Your task to perform on an android device: install app "Viber Messenger" Image 0: 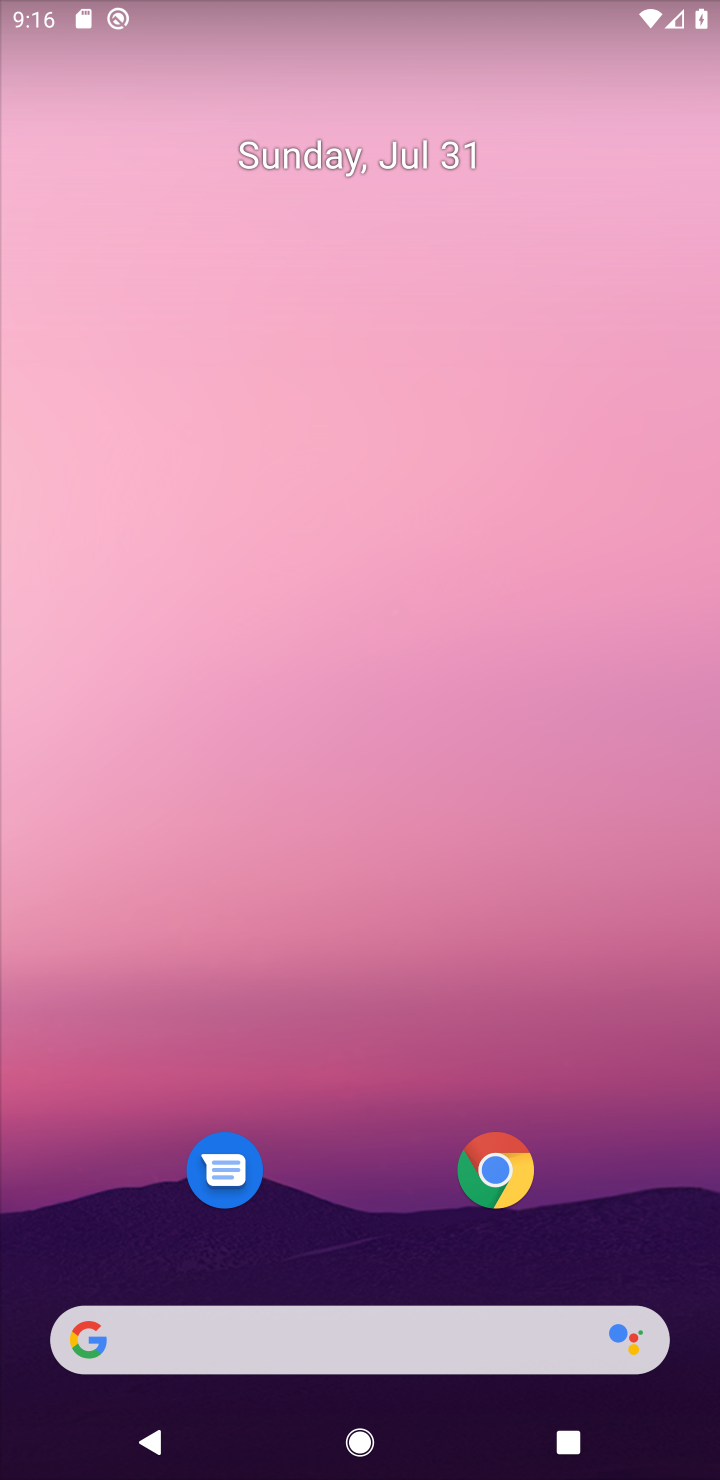
Step 0: drag from (683, 1276) to (186, 90)
Your task to perform on an android device: install app "Viber Messenger" Image 1: 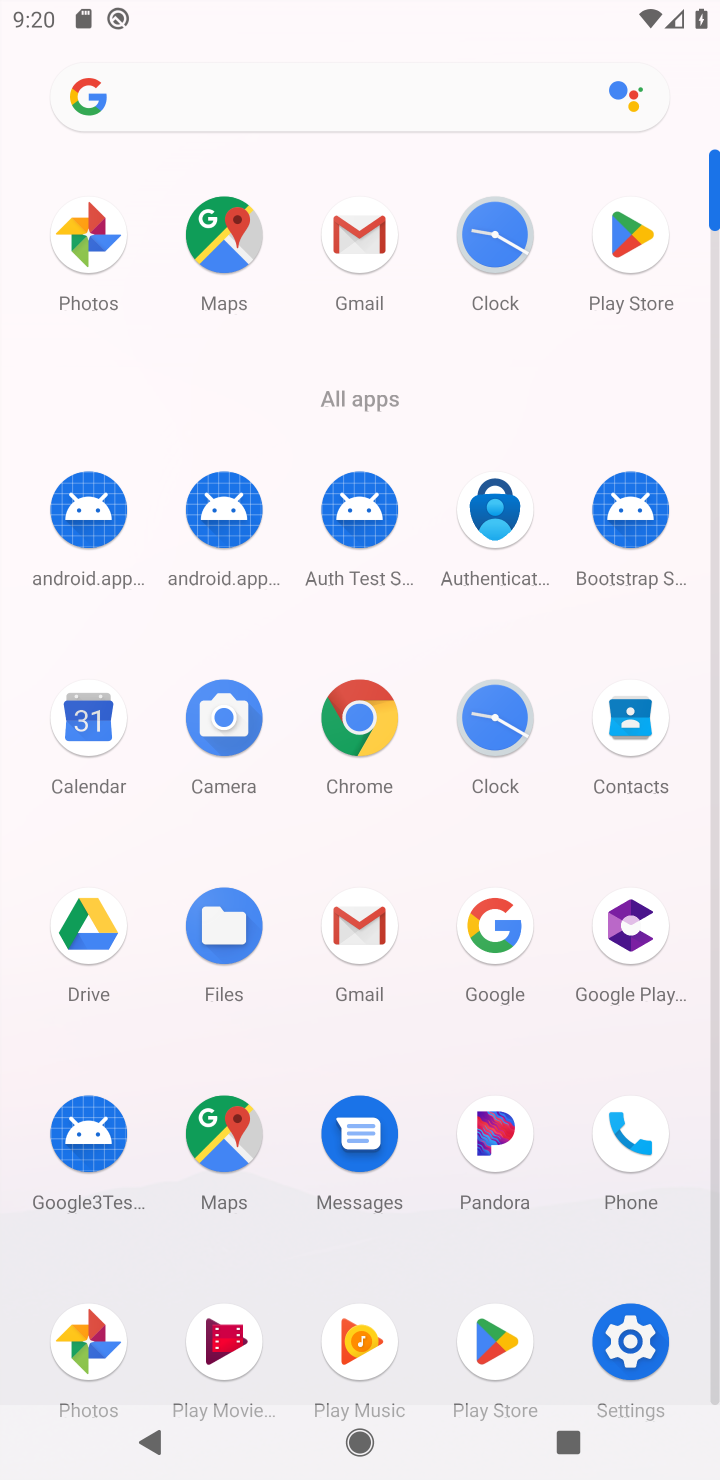
Step 1: click (628, 270)
Your task to perform on an android device: install app "Viber Messenger" Image 2: 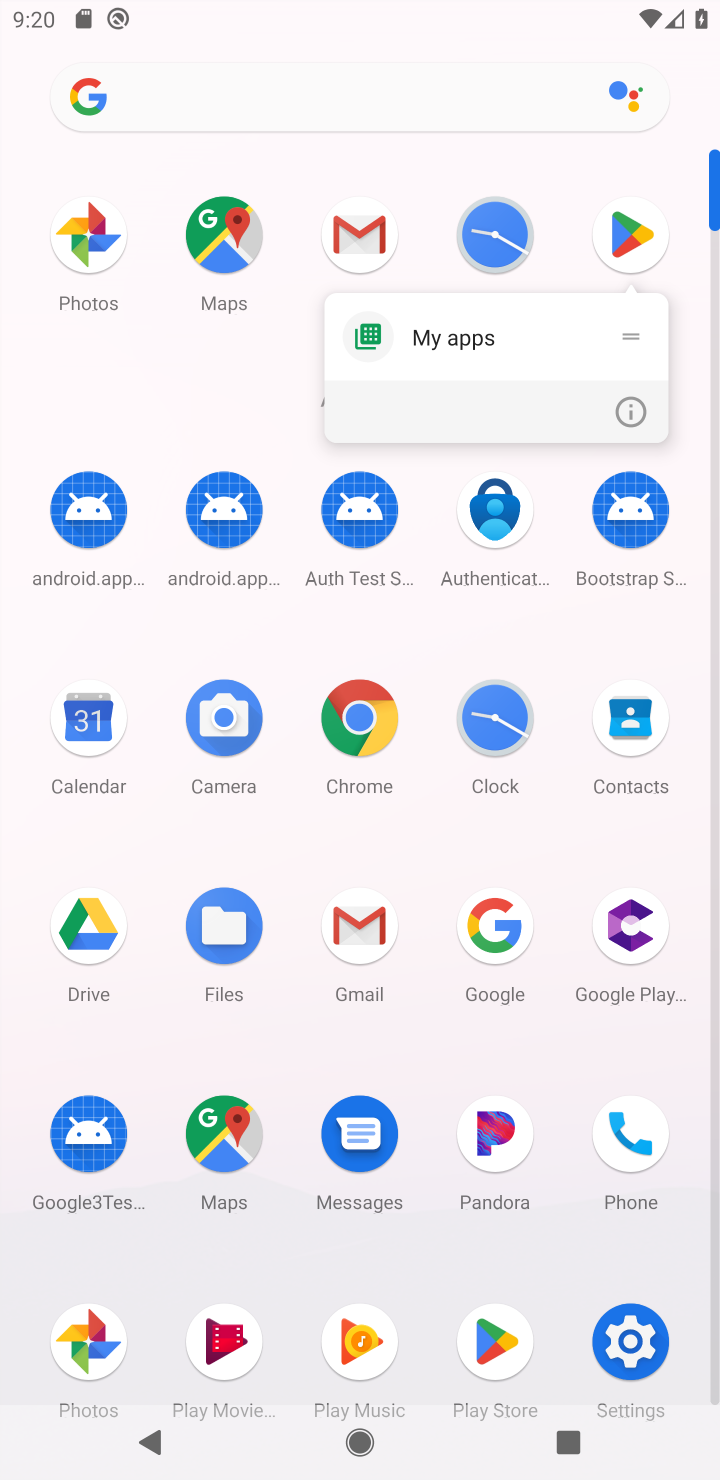
Step 2: click (608, 265)
Your task to perform on an android device: install app "Viber Messenger" Image 3: 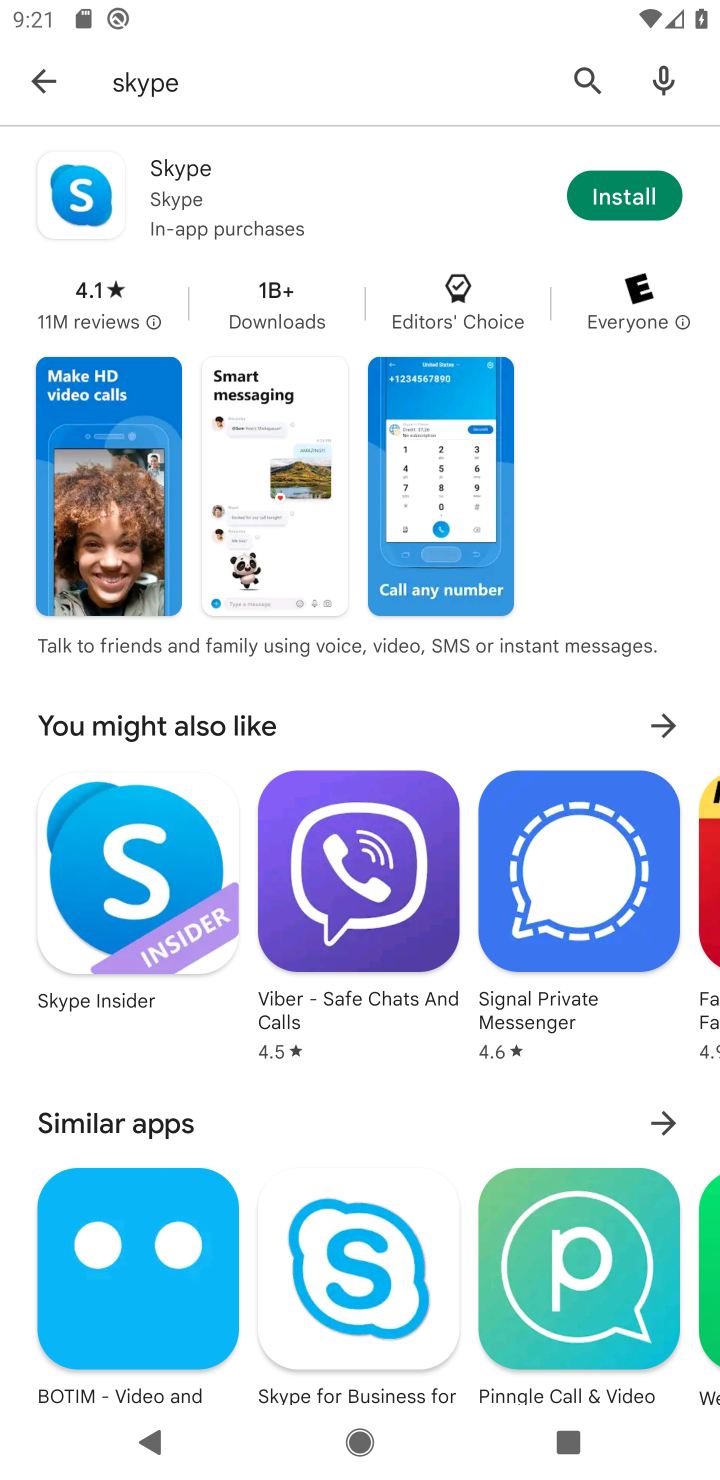
Step 3: press back button
Your task to perform on an android device: install app "Viber Messenger" Image 4: 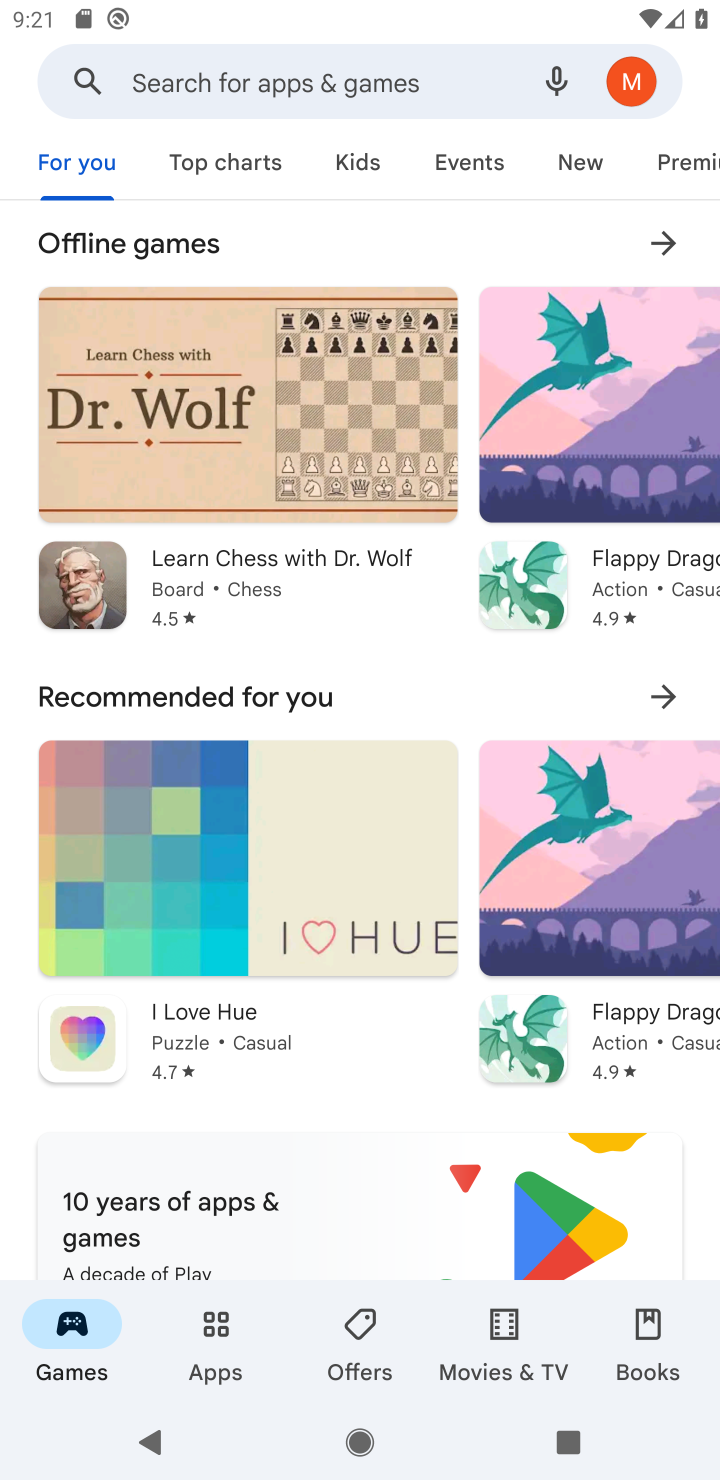
Step 4: click (173, 82)
Your task to perform on an android device: install app "Viber Messenger" Image 5: 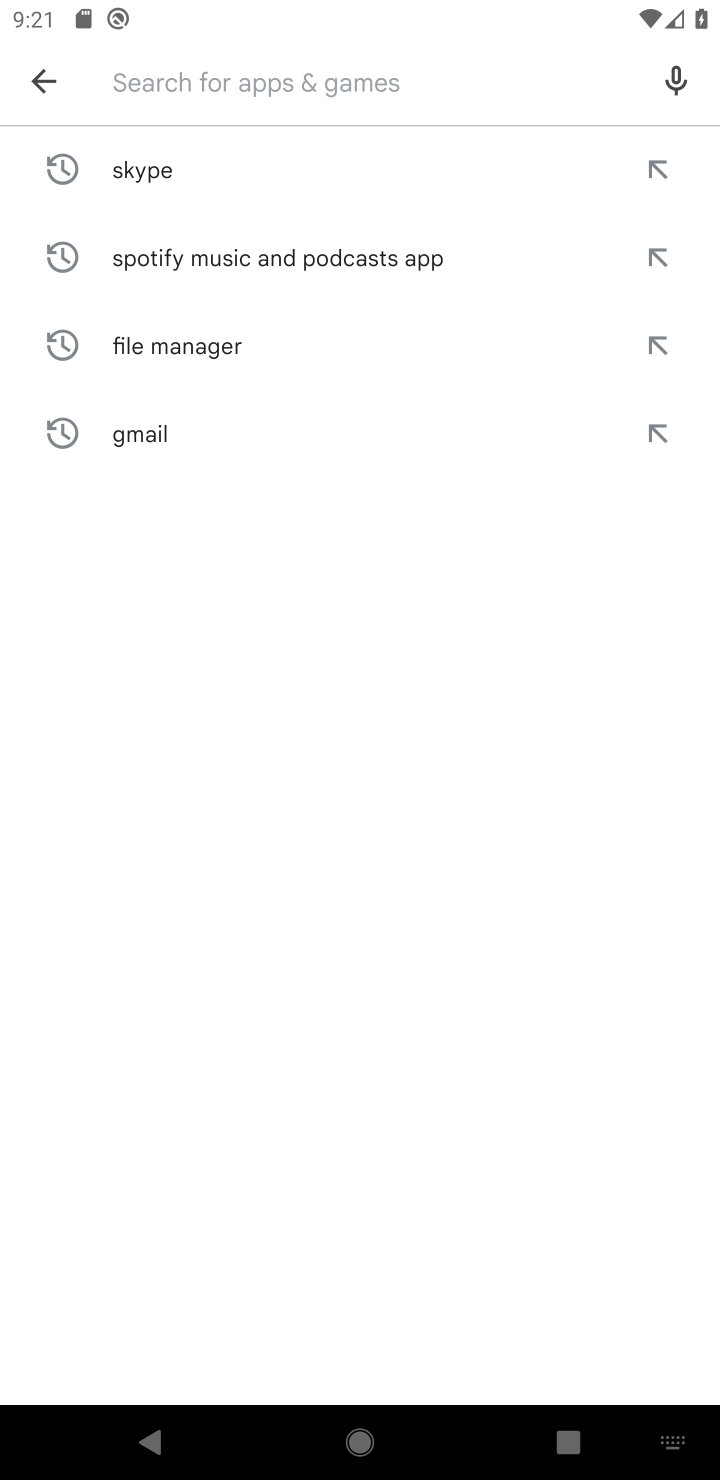
Step 5: type "Viber Messenger"
Your task to perform on an android device: install app "Viber Messenger" Image 6: 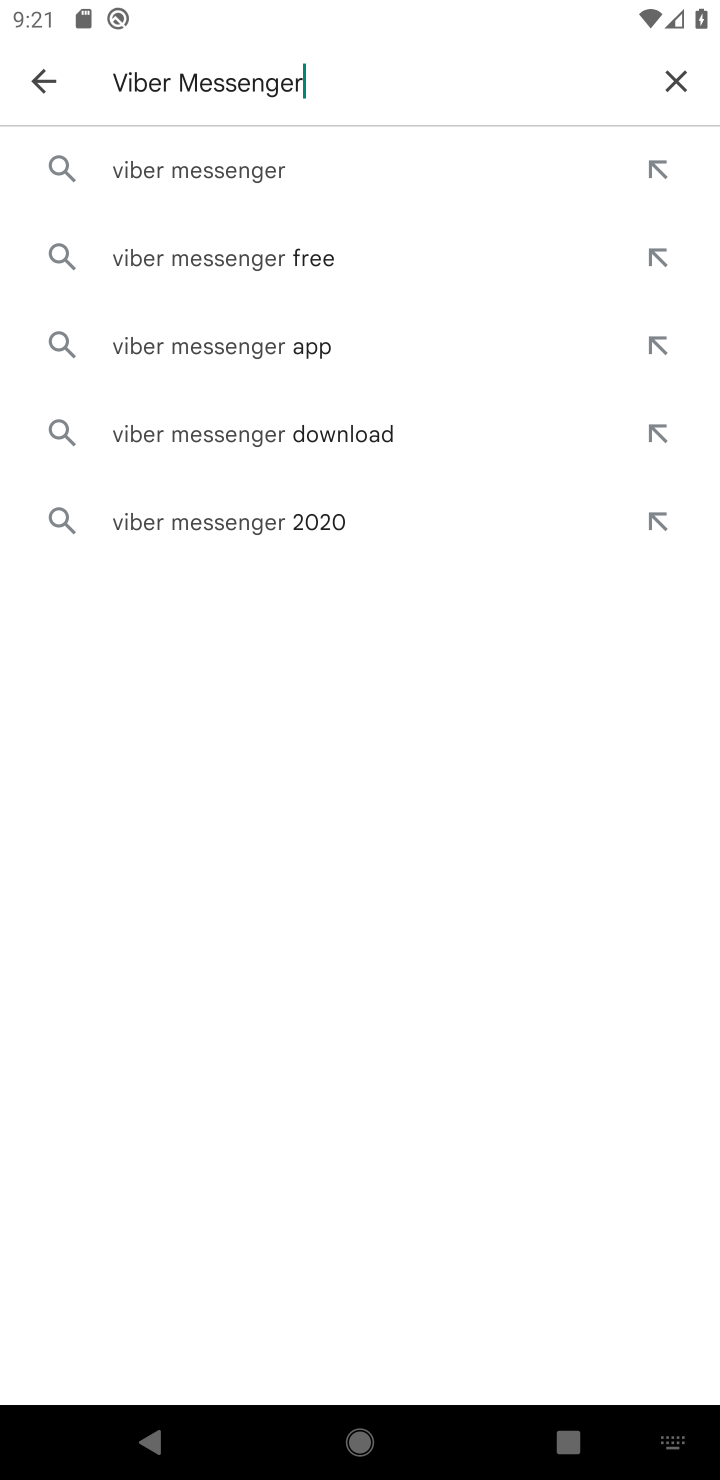
Step 6: click (185, 178)
Your task to perform on an android device: install app "Viber Messenger" Image 7: 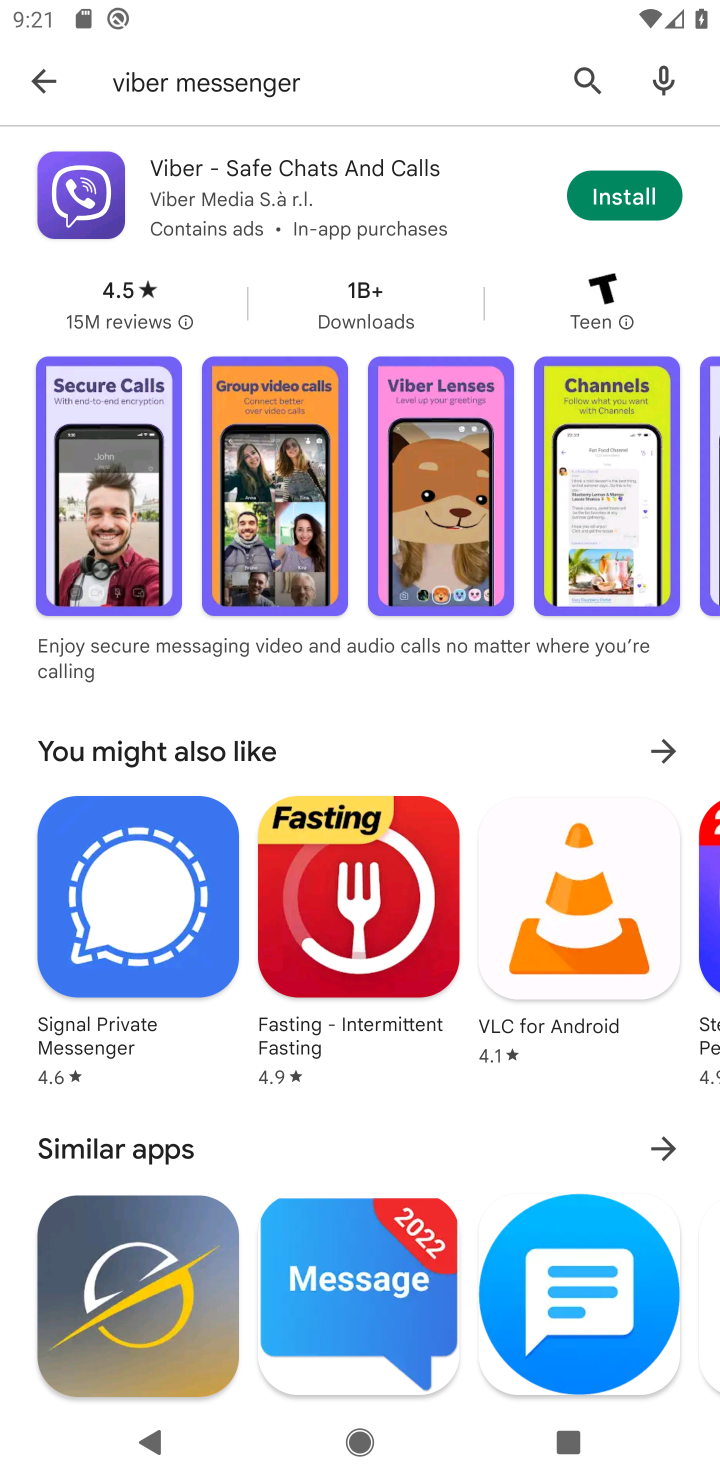
Step 7: click (624, 210)
Your task to perform on an android device: install app "Viber Messenger" Image 8: 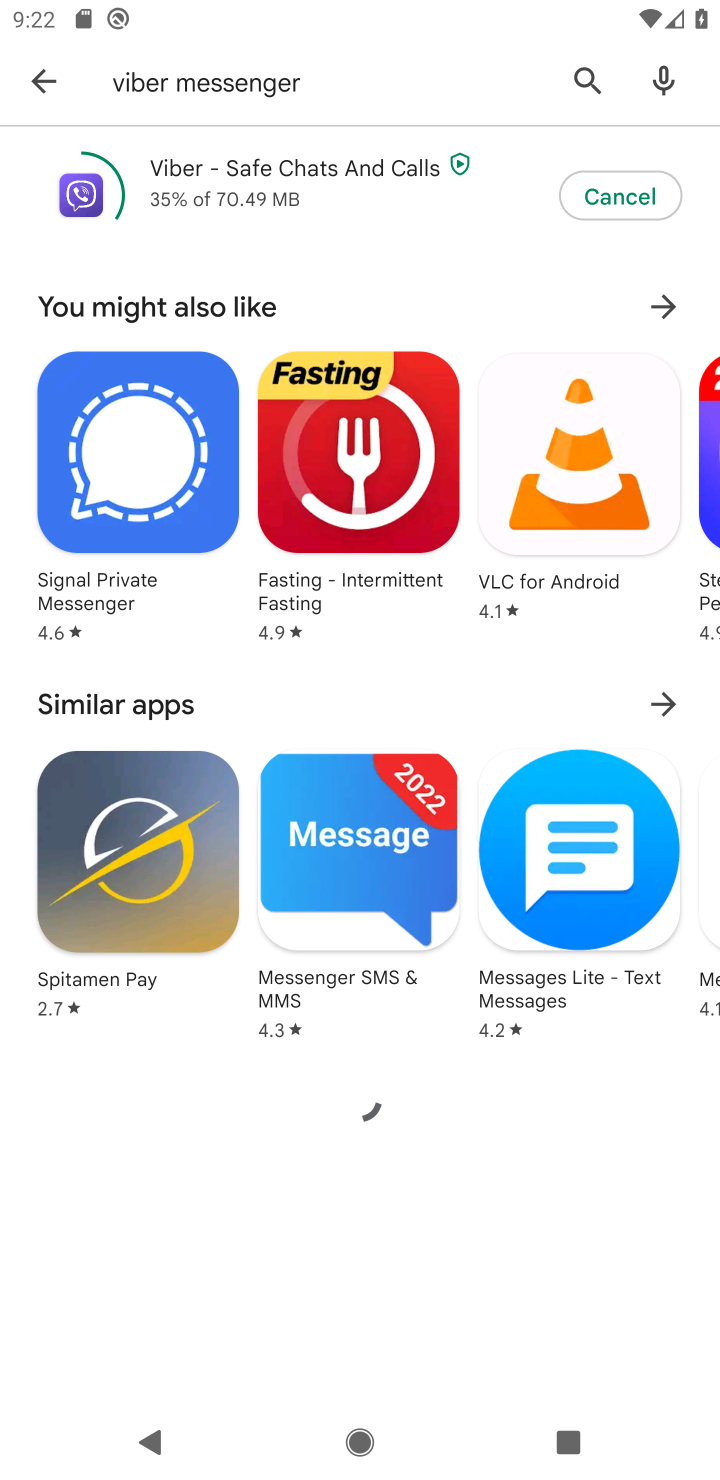
Step 8: task complete